Your task to perform on an android device: Go to location settings Image 0: 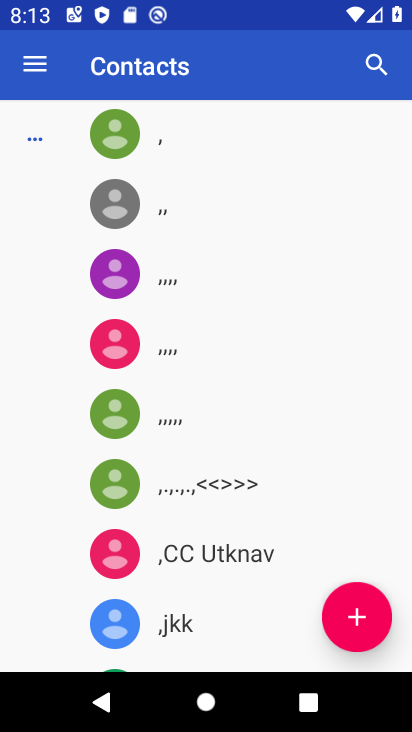
Step 0: press back button
Your task to perform on an android device: Go to location settings Image 1: 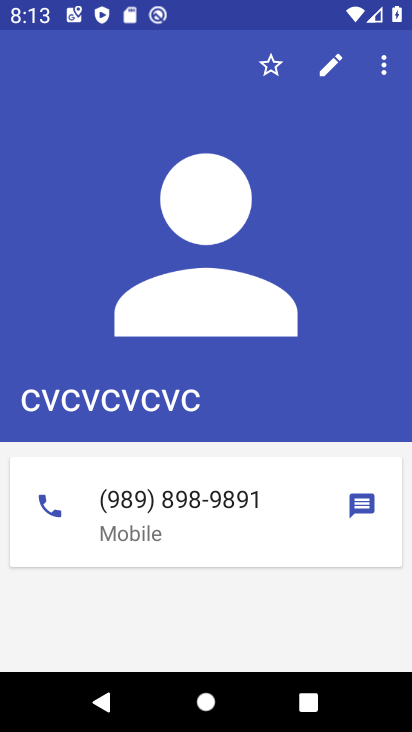
Step 1: press home button
Your task to perform on an android device: Go to location settings Image 2: 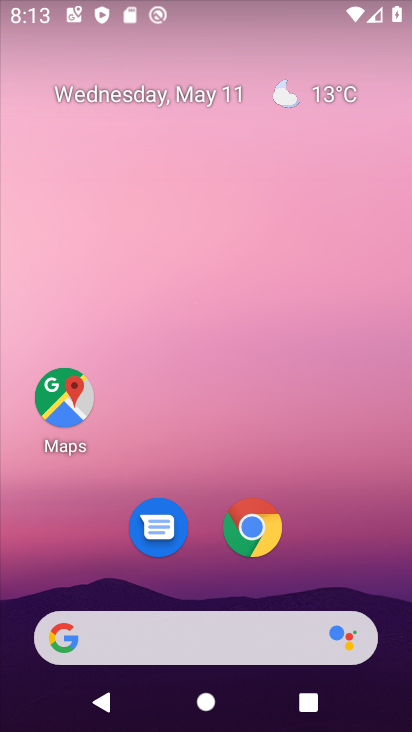
Step 2: drag from (85, 590) to (249, 58)
Your task to perform on an android device: Go to location settings Image 3: 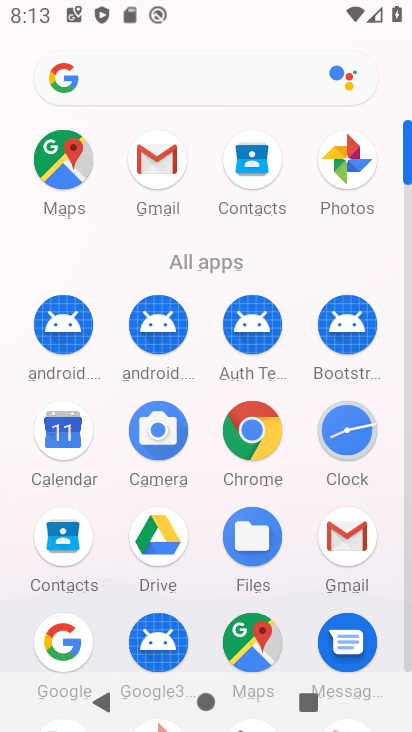
Step 3: drag from (175, 612) to (226, 337)
Your task to perform on an android device: Go to location settings Image 4: 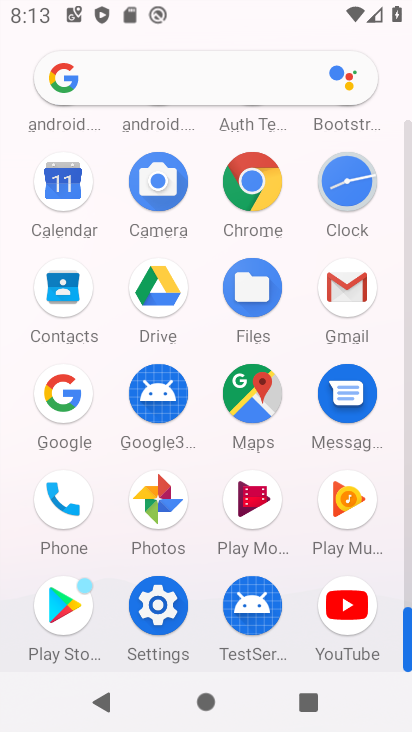
Step 4: click (158, 604)
Your task to perform on an android device: Go to location settings Image 5: 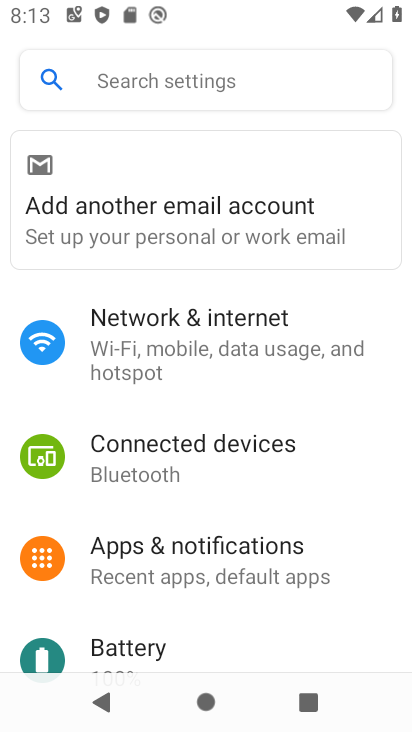
Step 5: drag from (183, 609) to (227, 239)
Your task to perform on an android device: Go to location settings Image 6: 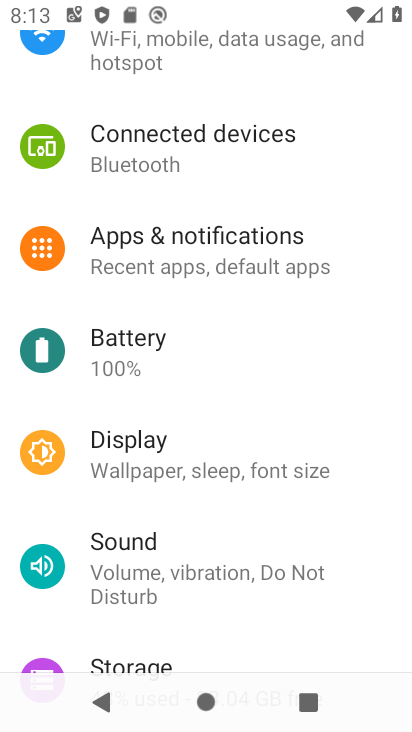
Step 6: drag from (170, 548) to (252, 154)
Your task to perform on an android device: Go to location settings Image 7: 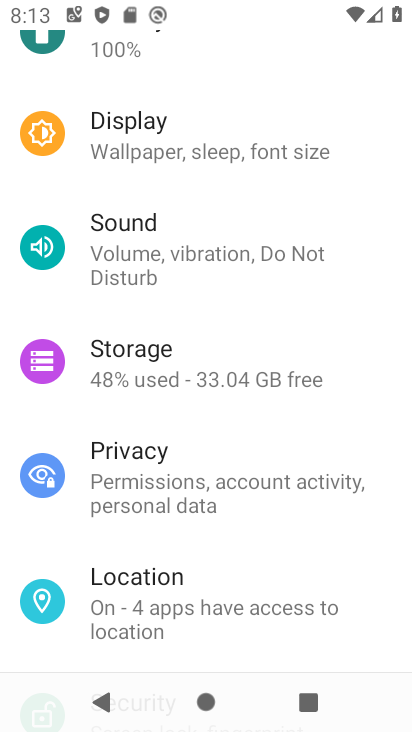
Step 7: click (169, 593)
Your task to perform on an android device: Go to location settings Image 8: 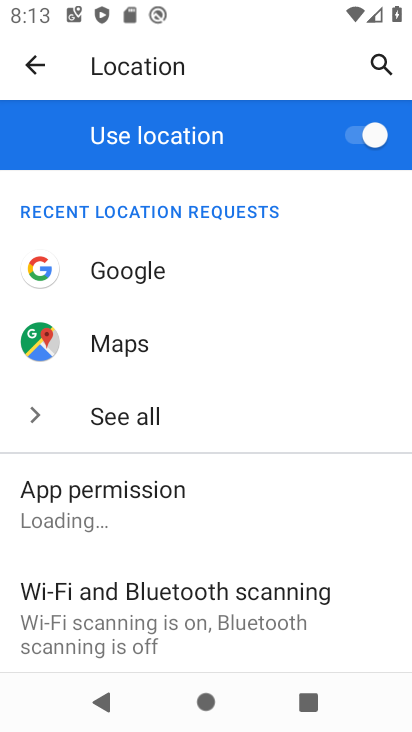
Step 8: task complete